Your task to perform on an android device: Open notification settings Image 0: 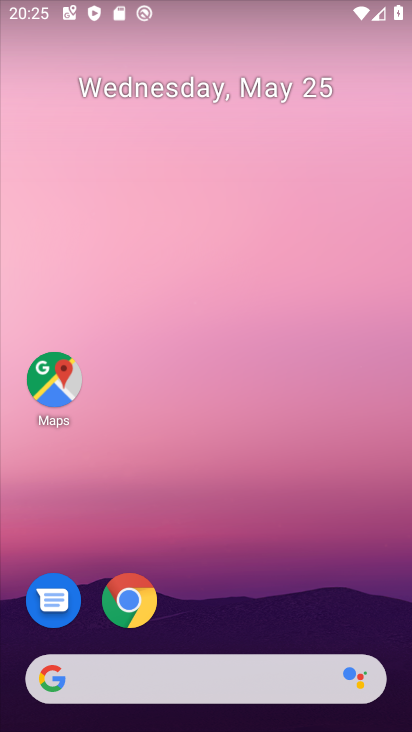
Step 0: drag from (362, 450) to (312, 86)
Your task to perform on an android device: Open notification settings Image 1: 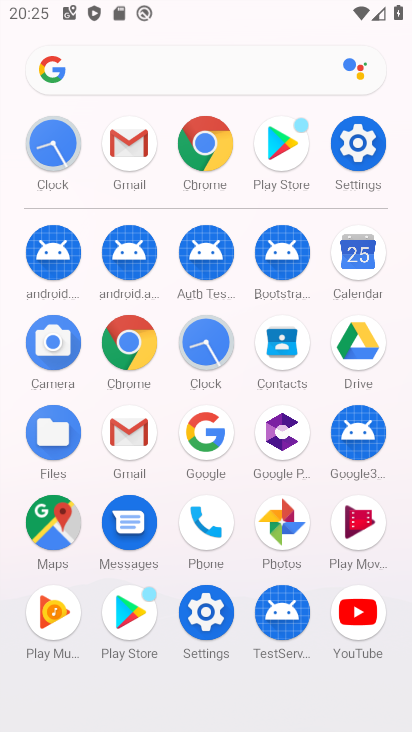
Step 1: click (351, 147)
Your task to perform on an android device: Open notification settings Image 2: 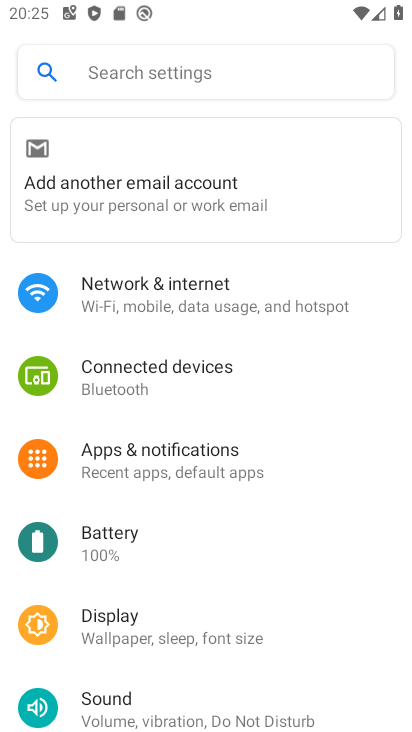
Step 2: click (200, 468)
Your task to perform on an android device: Open notification settings Image 3: 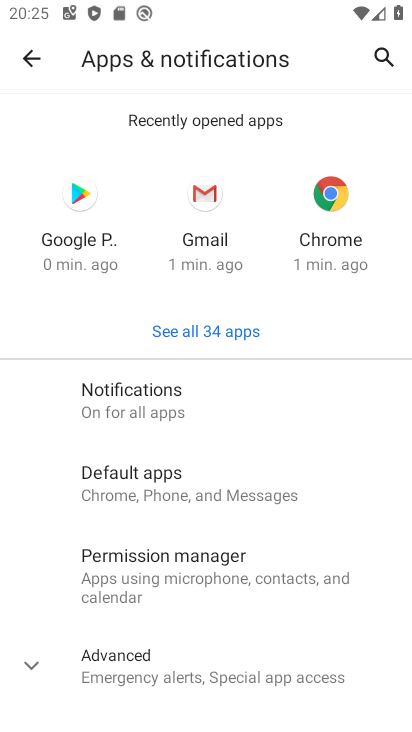
Step 3: click (179, 416)
Your task to perform on an android device: Open notification settings Image 4: 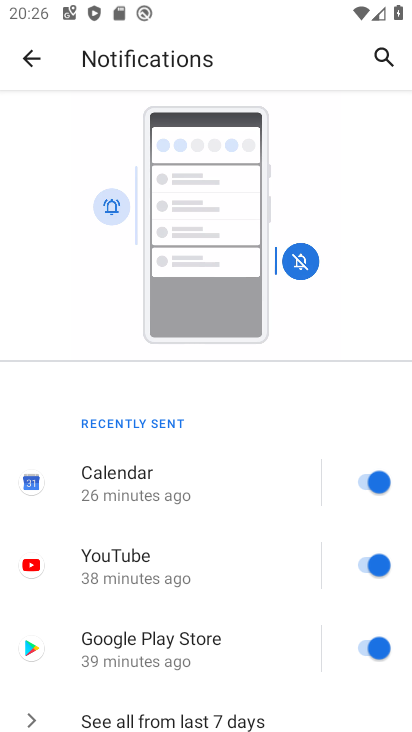
Step 4: task complete